Your task to perform on an android device: Open Google Chrome and click the shortcut for Amazon.com Image 0: 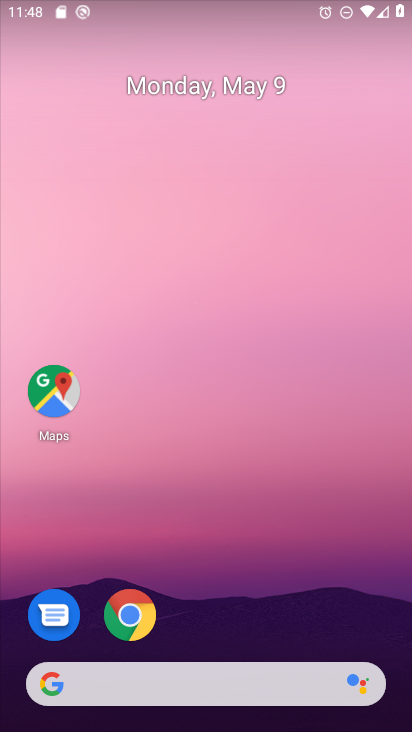
Step 0: drag from (253, 708) to (366, 209)
Your task to perform on an android device: Open Google Chrome and click the shortcut for Amazon.com Image 1: 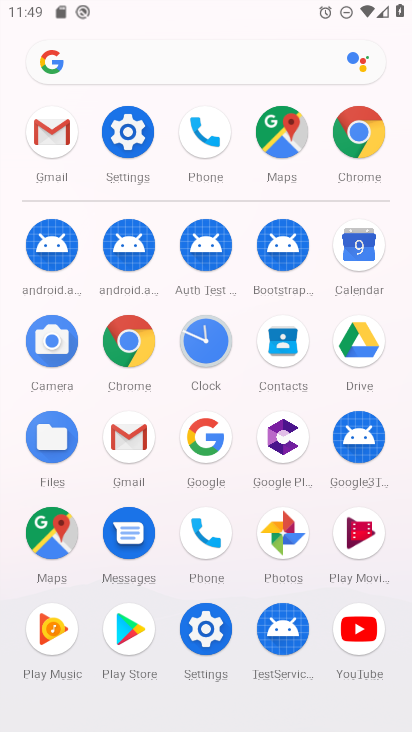
Step 1: click (348, 125)
Your task to perform on an android device: Open Google Chrome and click the shortcut for Amazon.com Image 2: 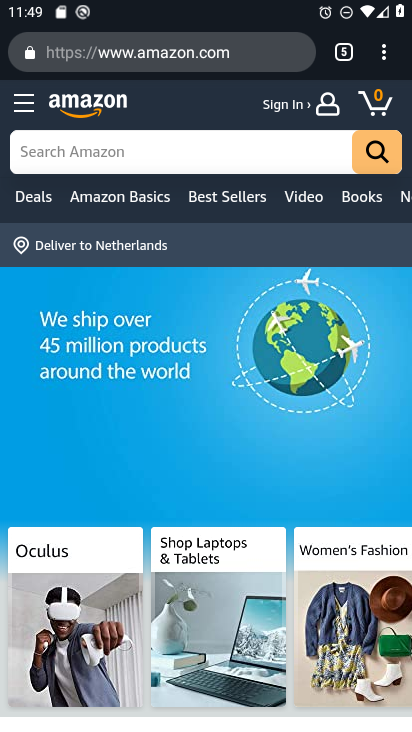
Step 2: click (381, 55)
Your task to perform on an android device: Open Google Chrome and click the shortcut for Amazon.com Image 3: 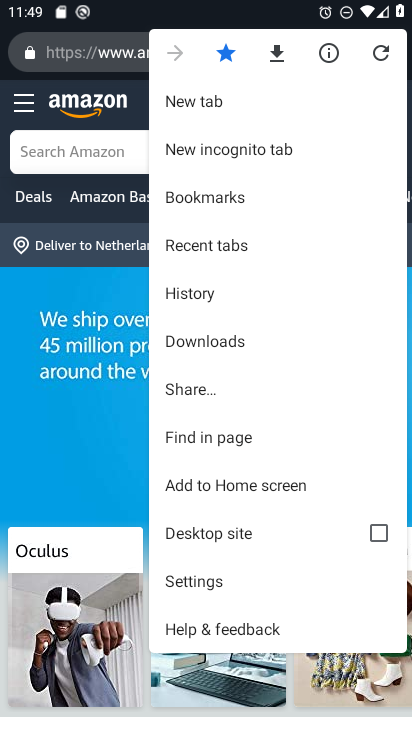
Step 3: click (220, 484)
Your task to perform on an android device: Open Google Chrome and click the shortcut for Amazon.com Image 4: 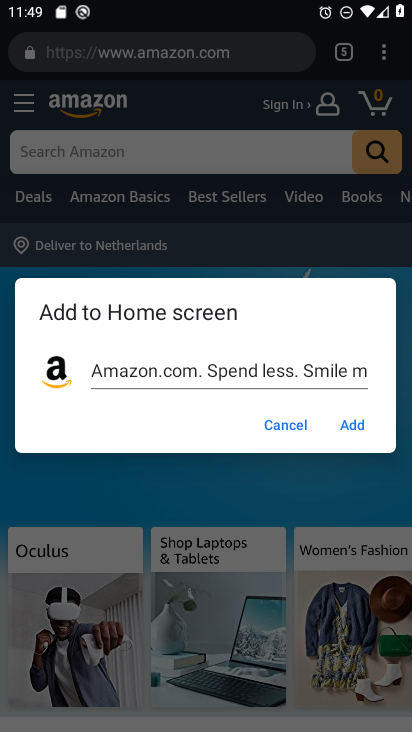
Step 4: click (358, 428)
Your task to perform on an android device: Open Google Chrome and click the shortcut for Amazon.com Image 5: 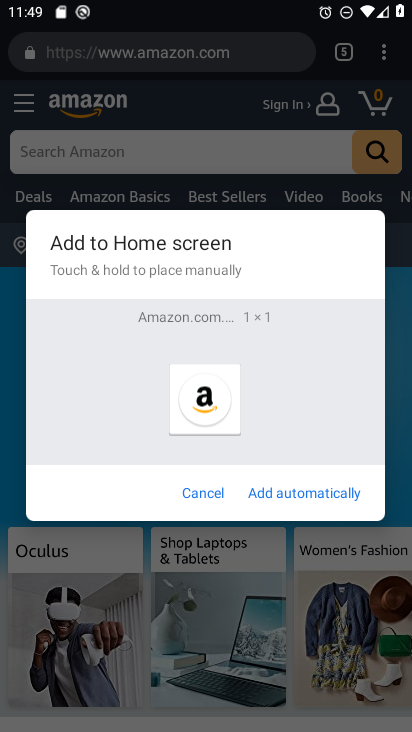
Step 5: click (269, 490)
Your task to perform on an android device: Open Google Chrome and click the shortcut for Amazon.com Image 6: 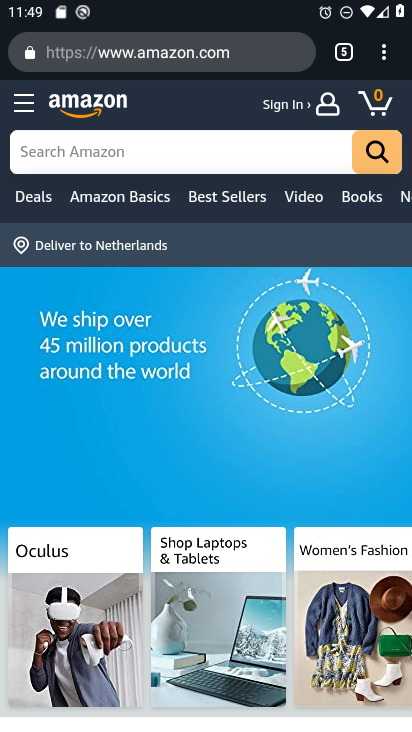
Step 6: task complete